Your task to perform on an android device: See recent photos Image 0: 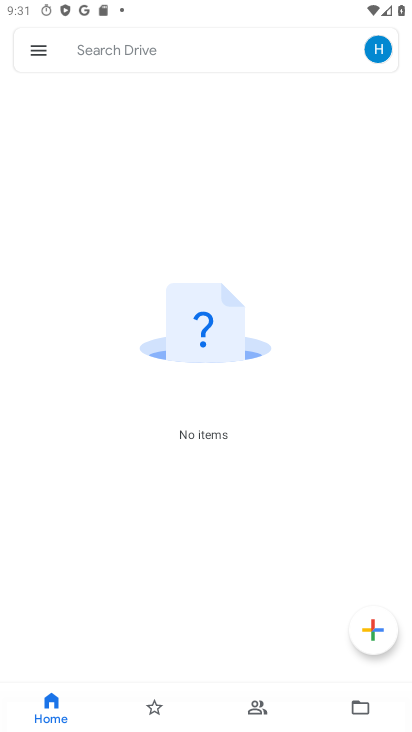
Step 0: click (42, 52)
Your task to perform on an android device: See recent photos Image 1: 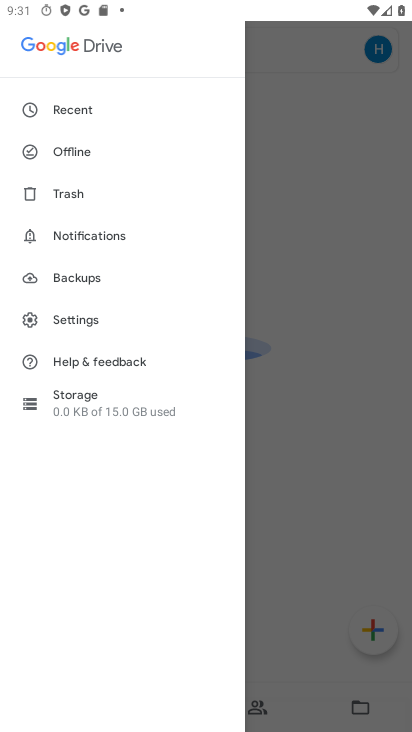
Step 1: click (64, 110)
Your task to perform on an android device: See recent photos Image 2: 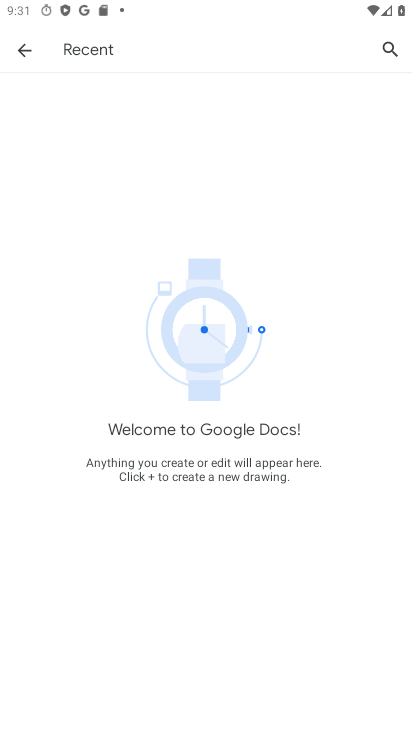
Step 2: task complete